Your task to perform on an android device: toggle data saver in the chrome app Image 0: 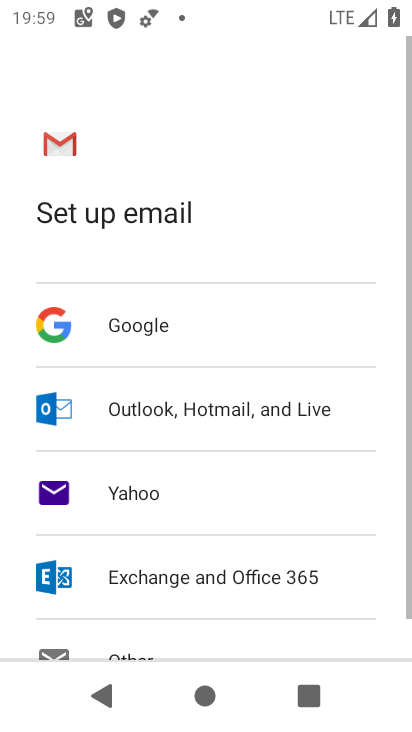
Step 0: press home button
Your task to perform on an android device: toggle data saver in the chrome app Image 1: 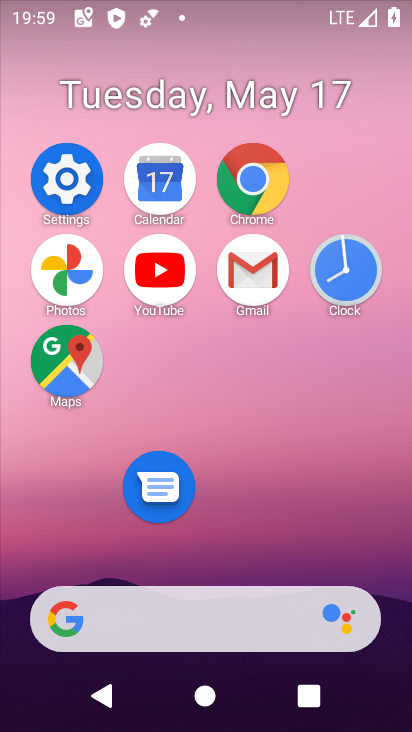
Step 1: click (240, 181)
Your task to perform on an android device: toggle data saver in the chrome app Image 2: 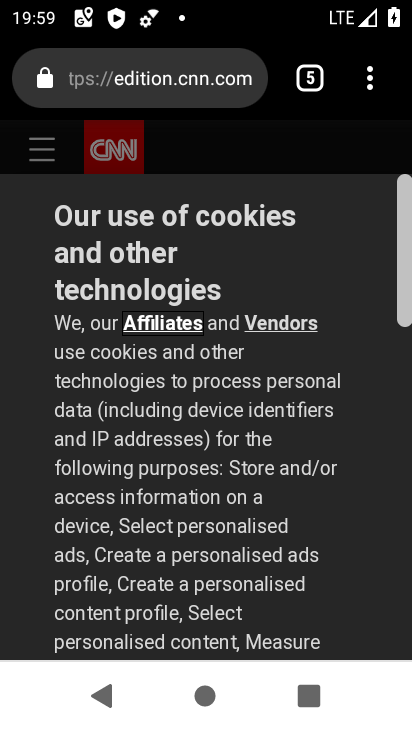
Step 2: click (370, 77)
Your task to perform on an android device: toggle data saver in the chrome app Image 3: 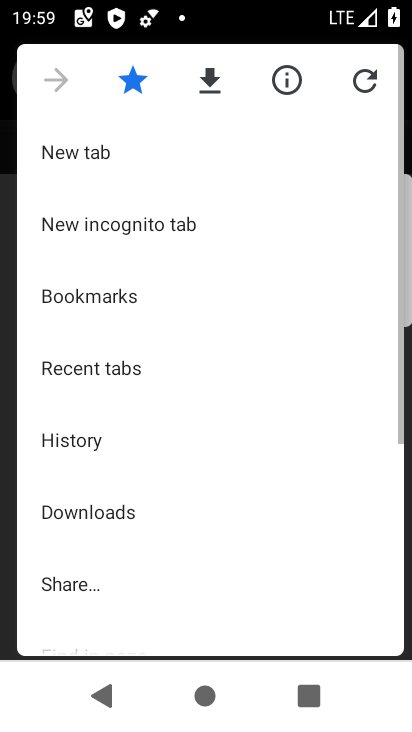
Step 3: drag from (213, 467) to (172, 62)
Your task to perform on an android device: toggle data saver in the chrome app Image 4: 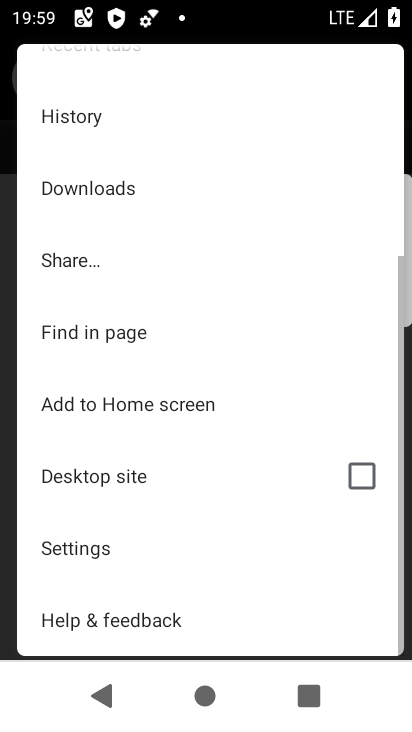
Step 4: click (115, 541)
Your task to perform on an android device: toggle data saver in the chrome app Image 5: 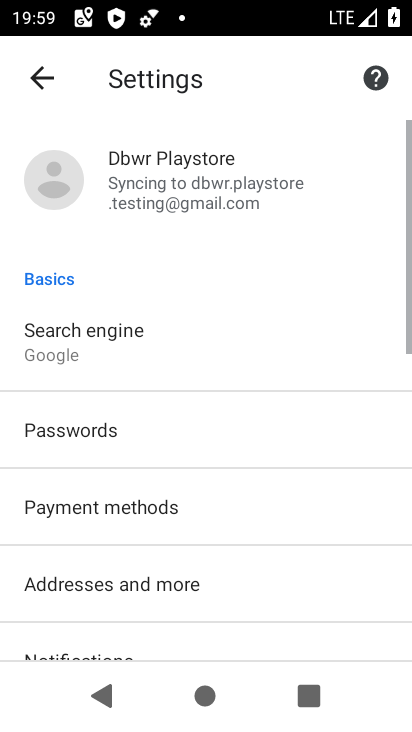
Step 5: drag from (167, 602) to (246, 173)
Your task to perform on an android device: toggle data saver in the chrome app Image 6: 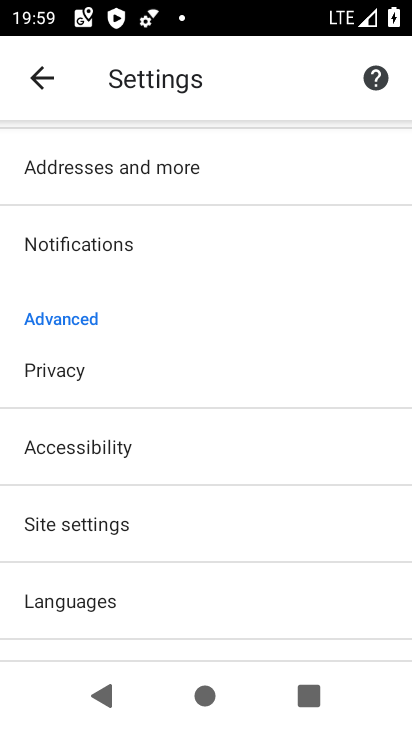
Step 6: drag from (103, 603) to (193, 191)
Your task to perform on an android device: toggle data saver in the chrome app Image 7: 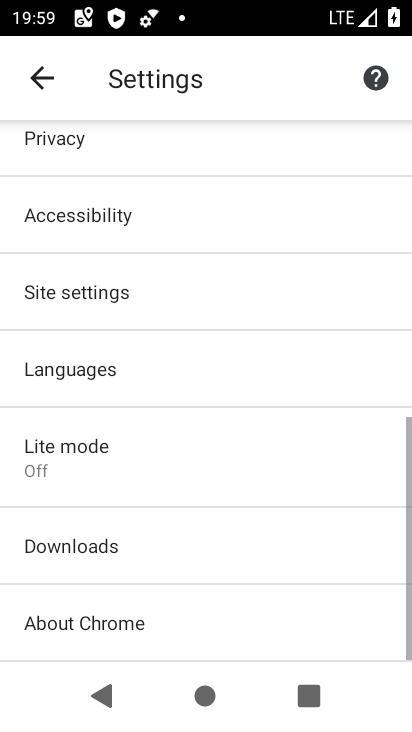
Step 7: click (147, 442)
Your task to perform on an android device: toggle data saver in the chrome app Image 8: 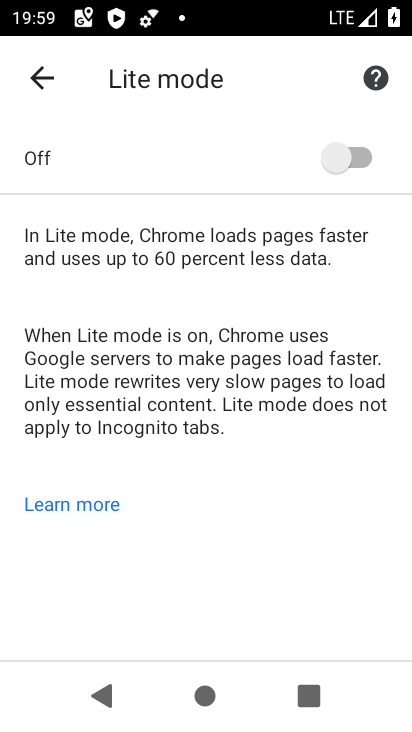
Step 8: click (334, 164)
Your task to perform on an android device: toggle data saver in the chrome app Image 9: 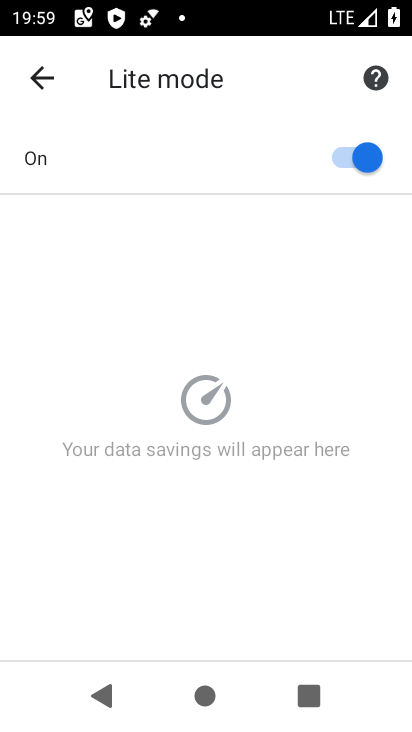
Step 9: task complete